Your task to perform on an android device: set the timer Image 0: 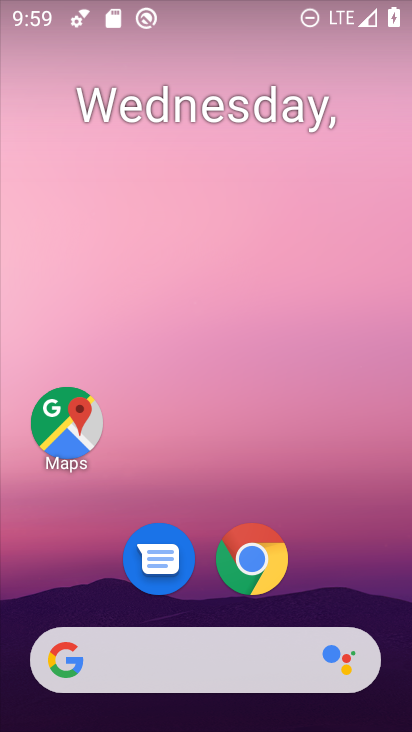
Step 0: press home button
Your task to perform on an android device: set the timer Image 1: 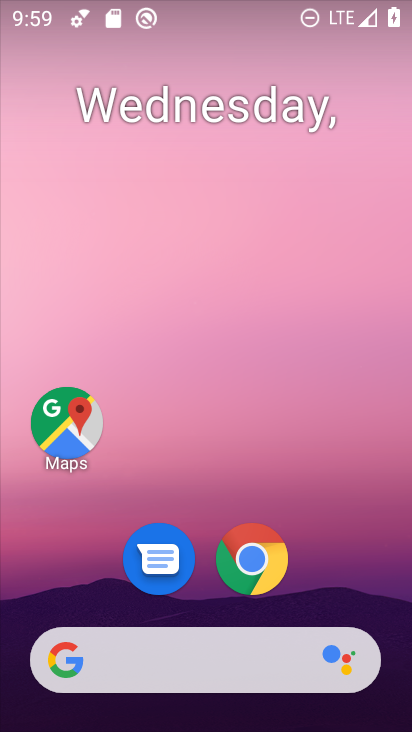
Step 1: drag from (249, 427) to (214, 49)
Your task to perform on an android device: set the timer Image 2: 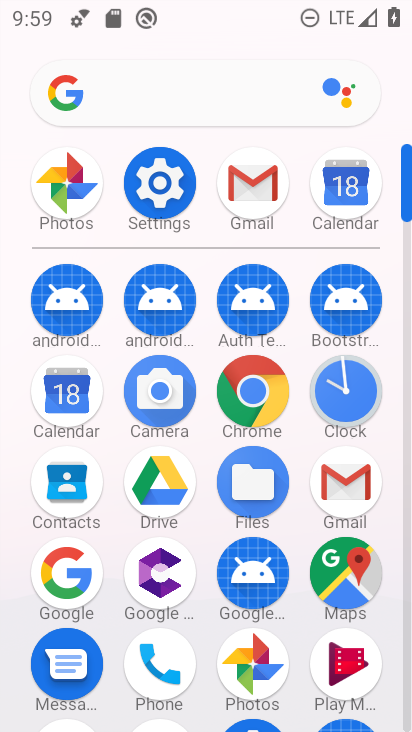
Step 2: click (342, 379)
Your task to perform on an android device: set the timer Image 3: 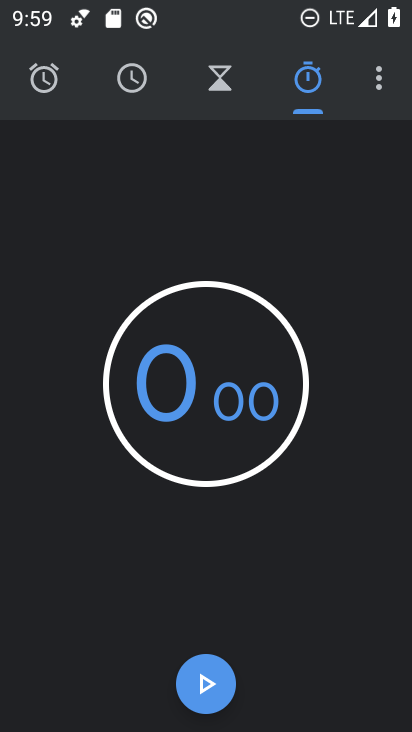
Step 3: click (213, 84)
Your task to perform on an android device: set the timer Image 4: 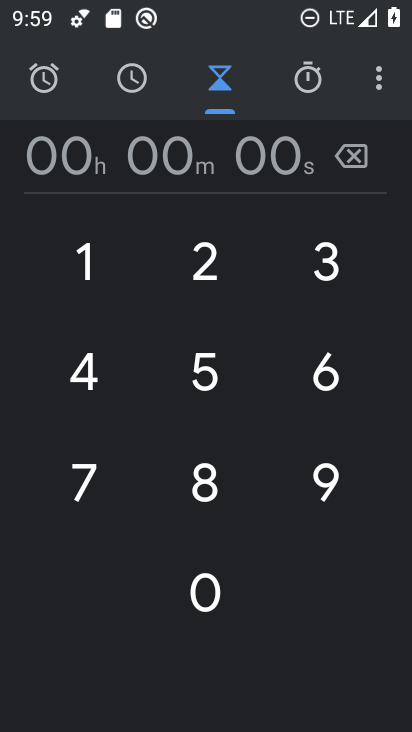
Step 4: click (95, 267)
Your task to perform on an android device: set the timer Image 5: 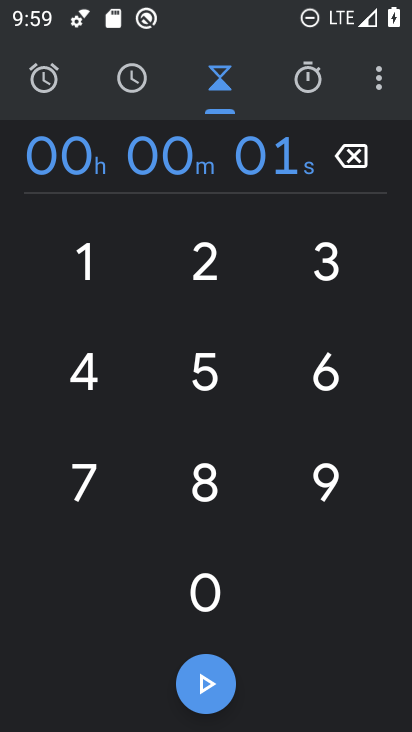
Step 5: task complete